Your task to perform on an android device: Open Google Chrome and open the bookmarks view Image 0: 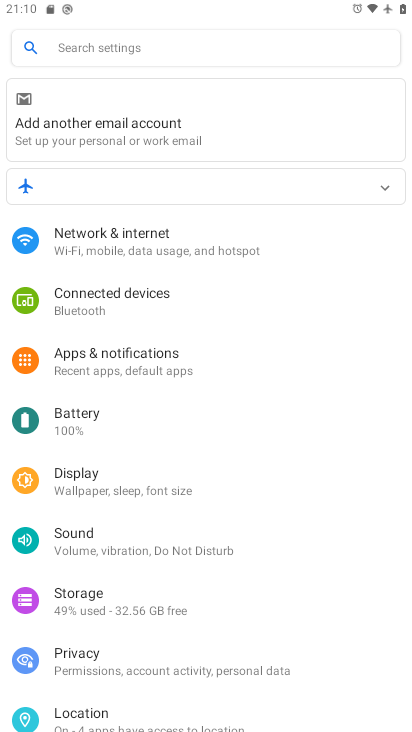
Step 0: press home button
Your task to perform on an android device: Open Google Chrome and open the bookmarks view Image 1: 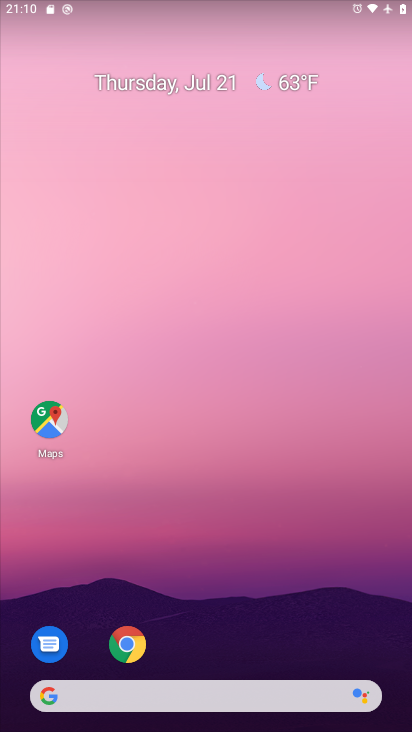
Step 1: click (117, 641)
Your task to perform on an android device: Open Google Chrome and open the bookmarks view Image 2: 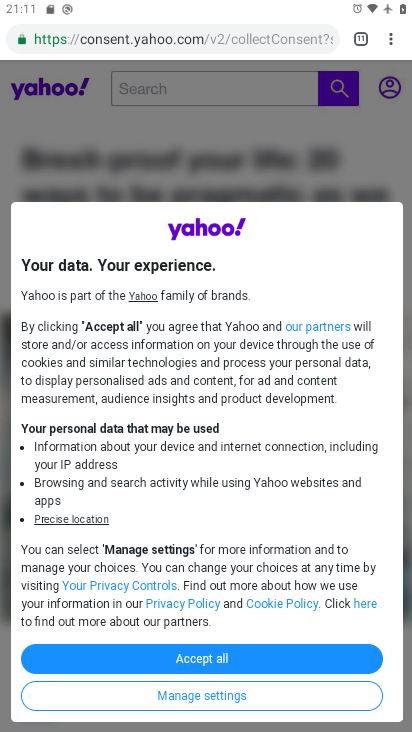
Step 2: click (396, 29)
Your task to perform on an android device: Open Google Chrome and open the bookmarks view Image 3: 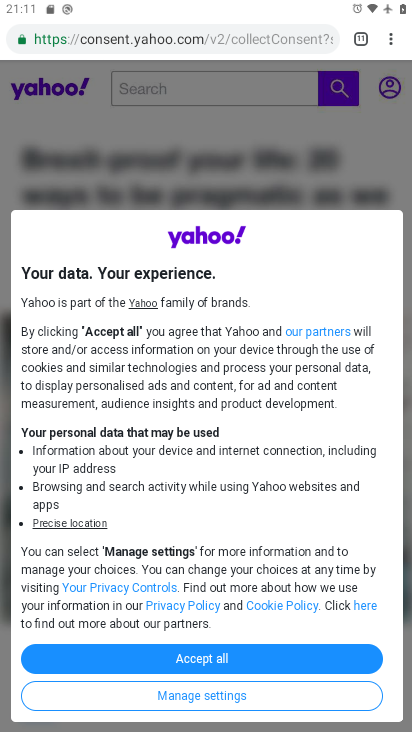
Step 3: click (396, 29)
Your task to perform on an android device: Open Google Chrome and open the bookmarks view Image 4: 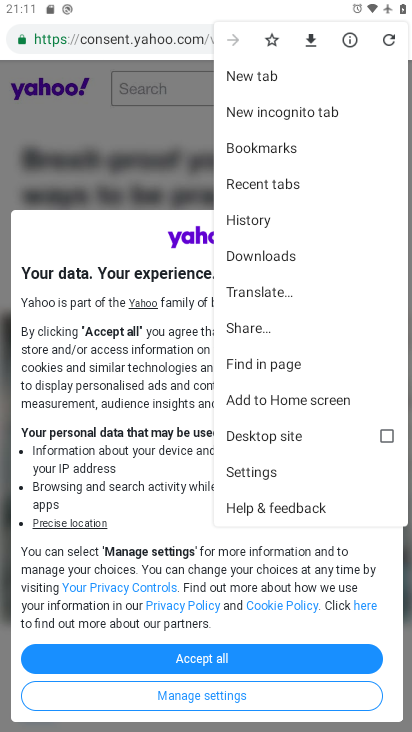
Step 4: click (268, 137)
Your task to perform on an android device: Open Google Chrome and open the bookmarks view Image 5: 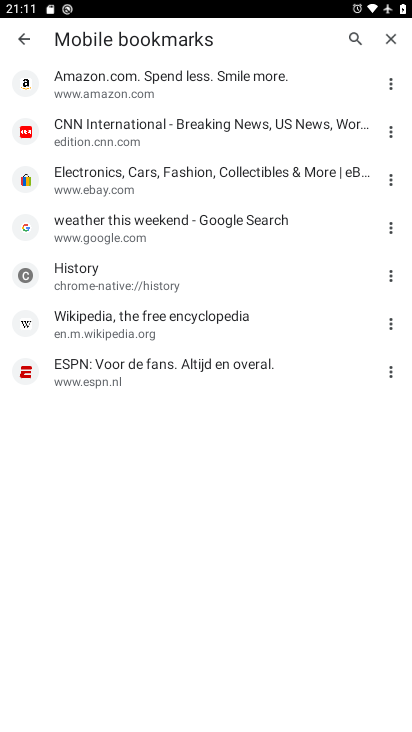
Step 5: task complete